Your task to perform on an android device: Is it going to rain this weekend? Image 0: 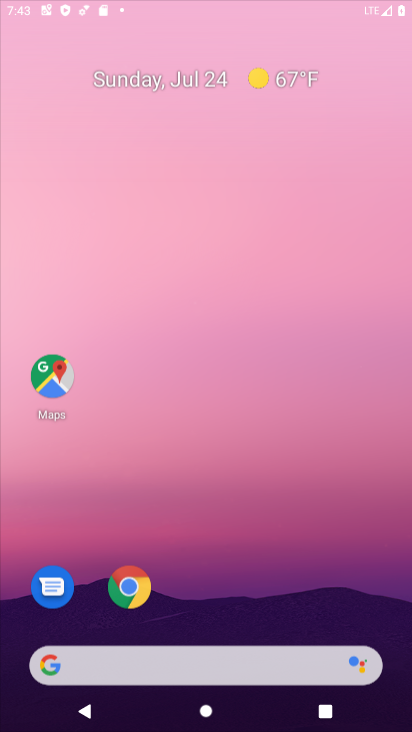
Step 0: click (227, 290)
Your task to perform on an android device: Is it going to rain this weekend? Image 1: 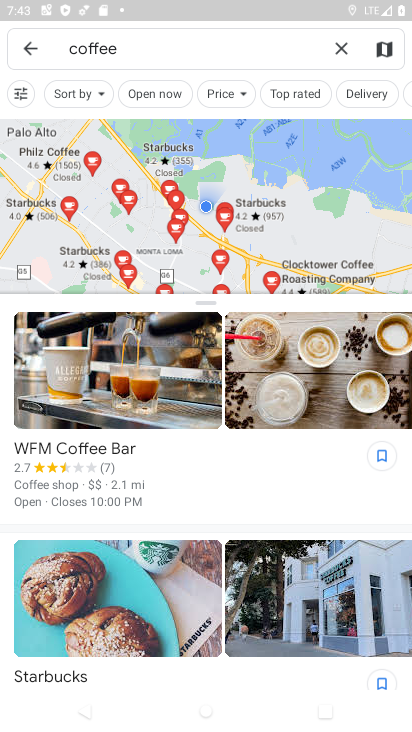
Step 1: press home button
Your task to perform on an android device: Is it going to rain this weekend? Image 2: 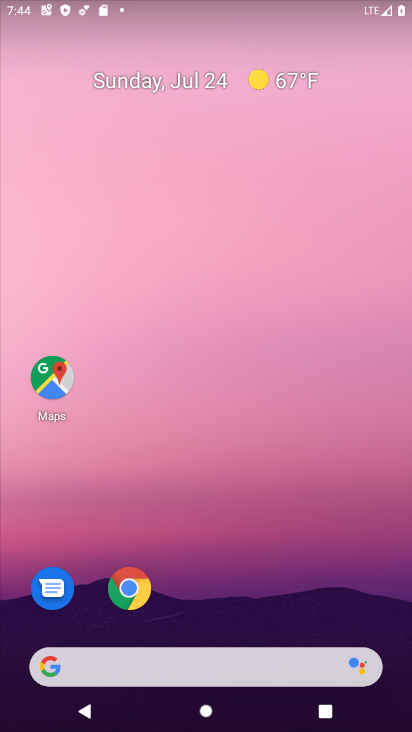
Step 2: click (134, 591)
Your task to perform on an android device: Is it going to rain this weekend? Image 3: 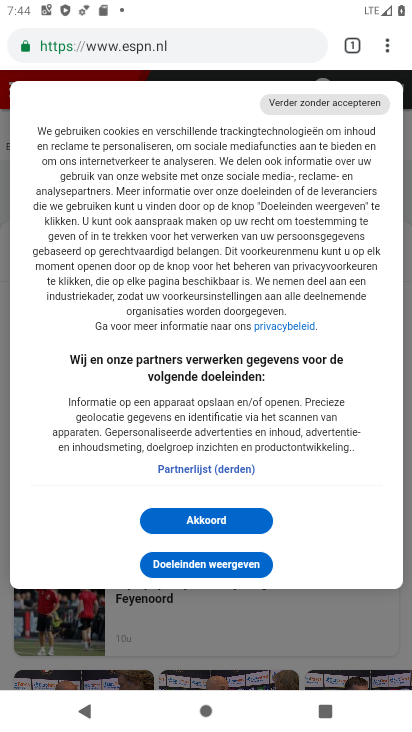
Step 3: click (397, 38)
Your task to perform on an android device: Is it going to rain this weekend? Image 4: 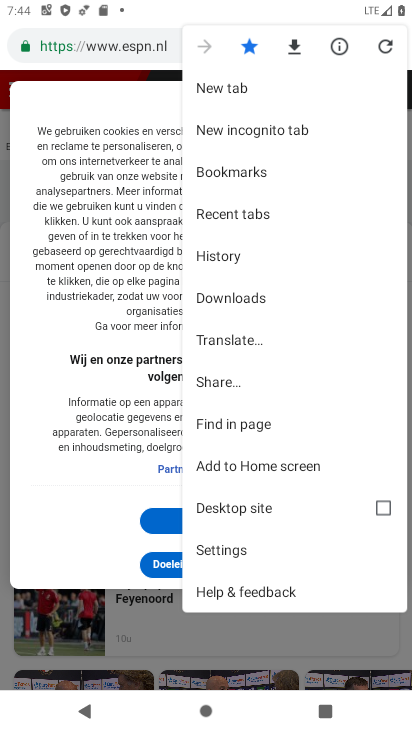
Step 4: click (219, 81)
Your task to perform on an android device: Is it going to rain this weekend? Image 5: 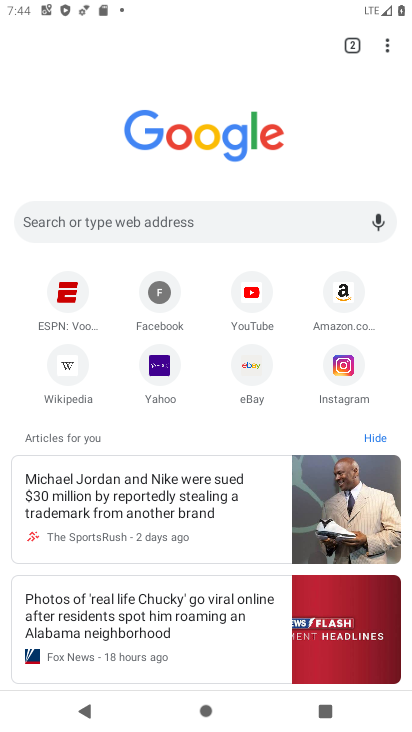
Step 5: click (183, 209)
Your task to perform on an android device: Is it going to rain this weekend? Image 6: 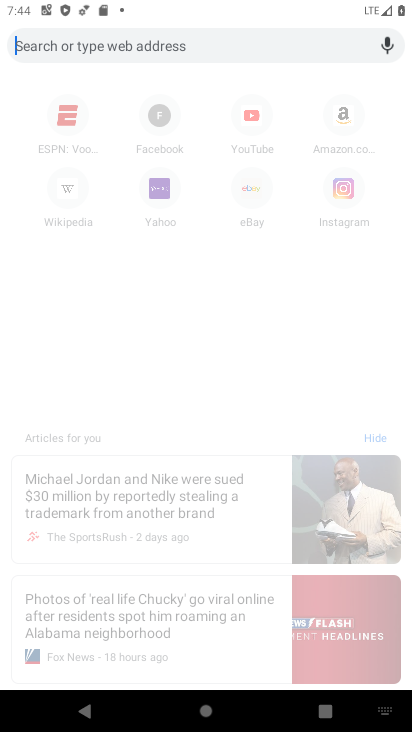
Step 6: type "Is it going to rain this weekend? "
Your task to perform on an android device: Is it going to rain this weekend? Image 7: 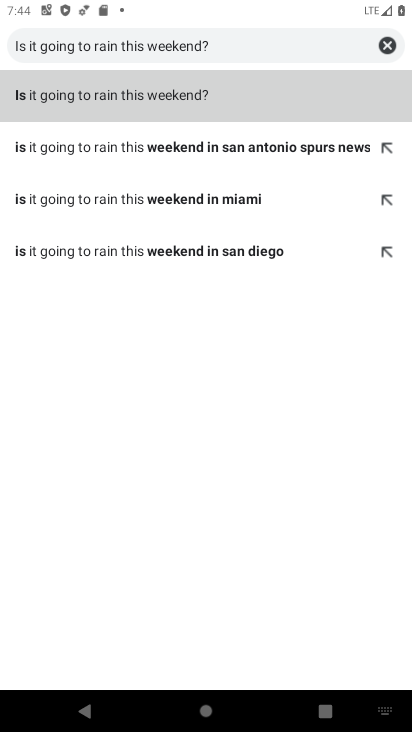
Step 7: click (80, 96)
Your task to perform on an android device: Is it going to rain this weekend? Image 8: 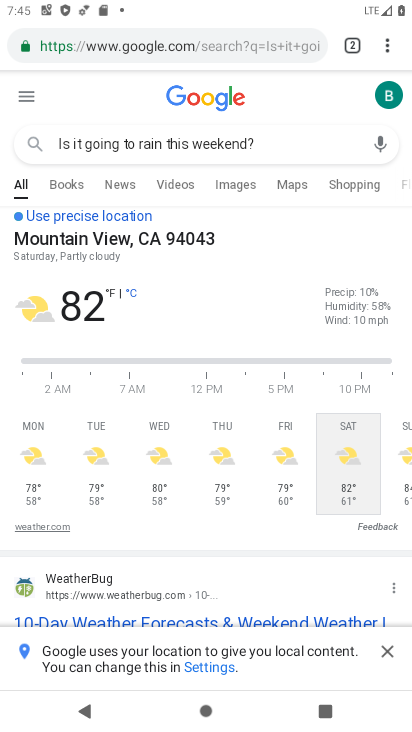
Step 8: task complete